Your task to perform on an android device: open app "Chime – Mobile Banking" (install if not already installed) Image 0: 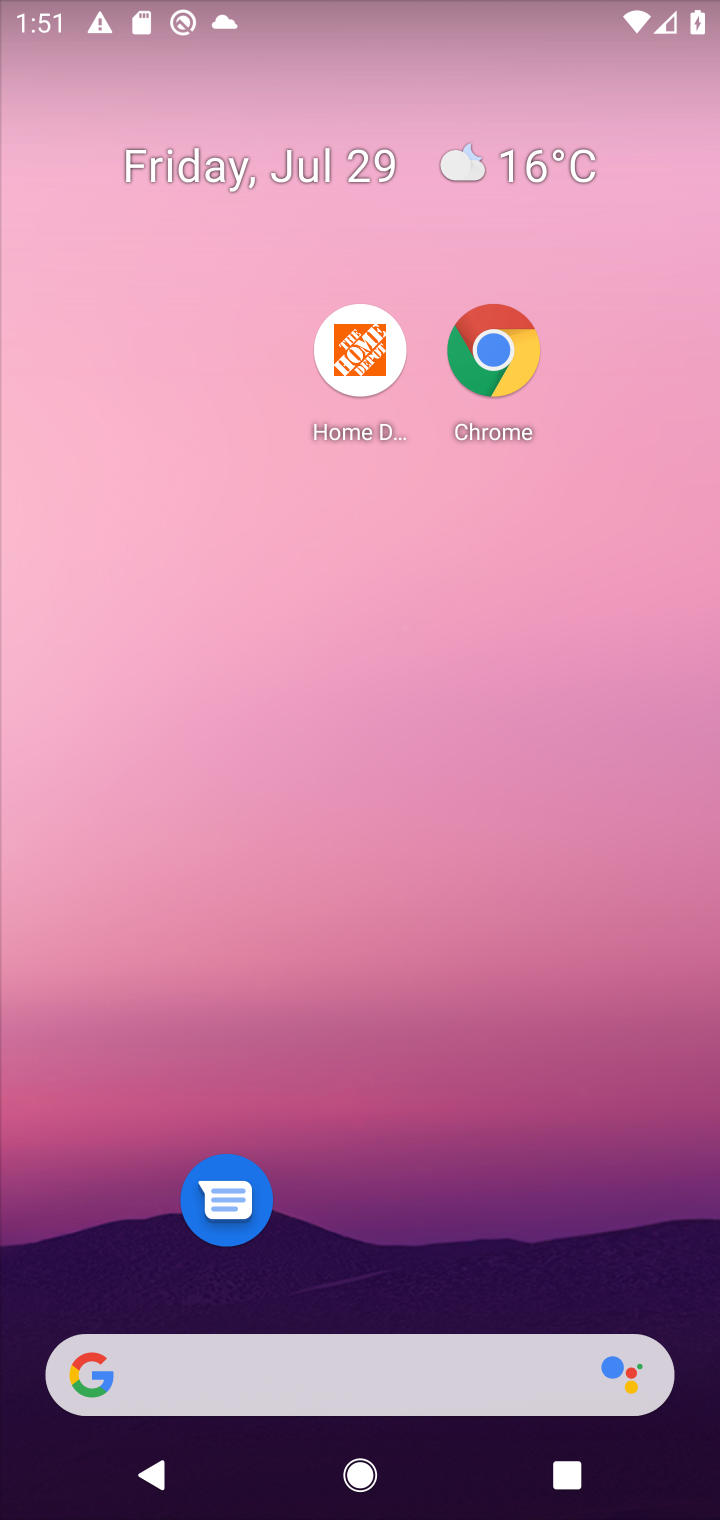
Step 0: drag from (553, 881) to (531, 108)
Your task to perform on an android device: open app "Chime – Mobile Banking" (install if not already installed) Image 1: 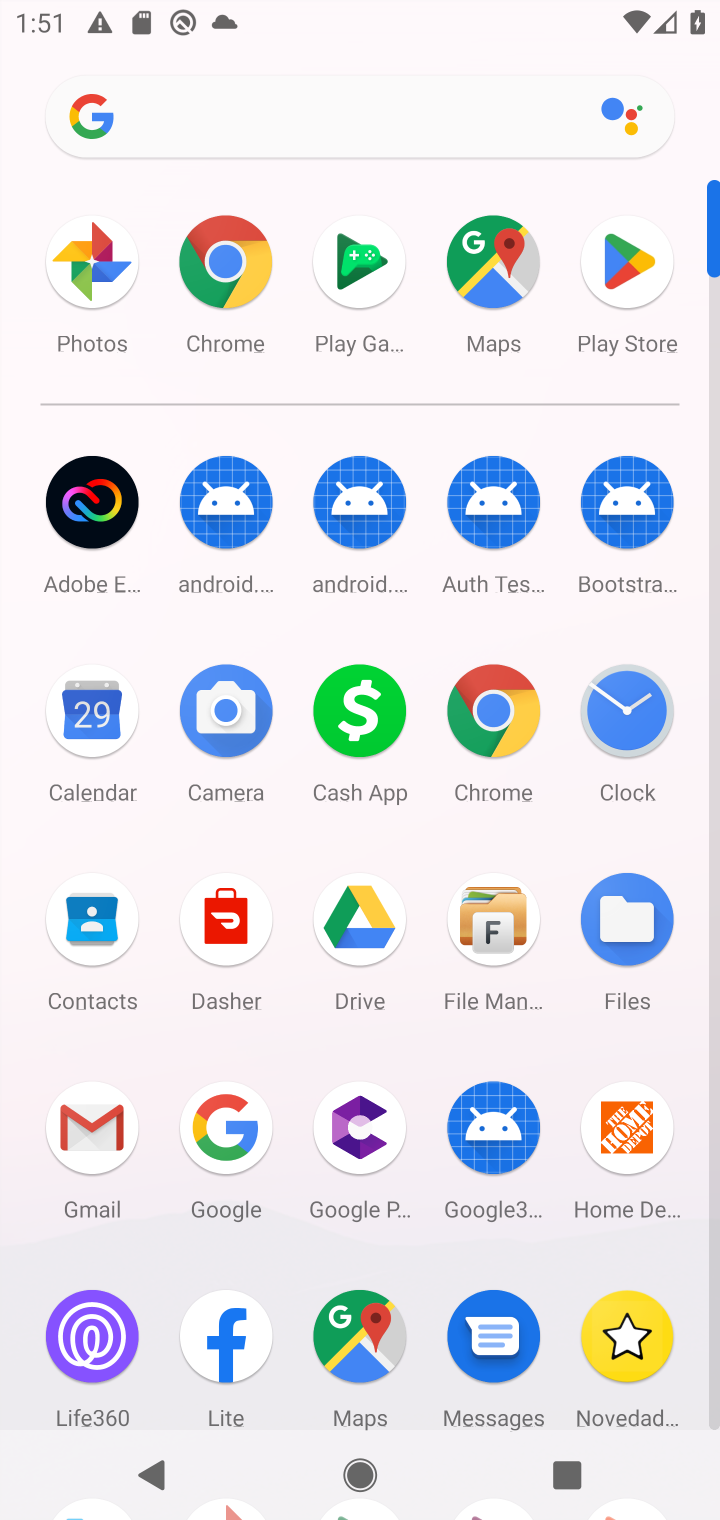
Step 1: click (624, 262)
Your task to perform on an android device: open app "Chime – Mobile Banking" (install if not already installed) Image 2: 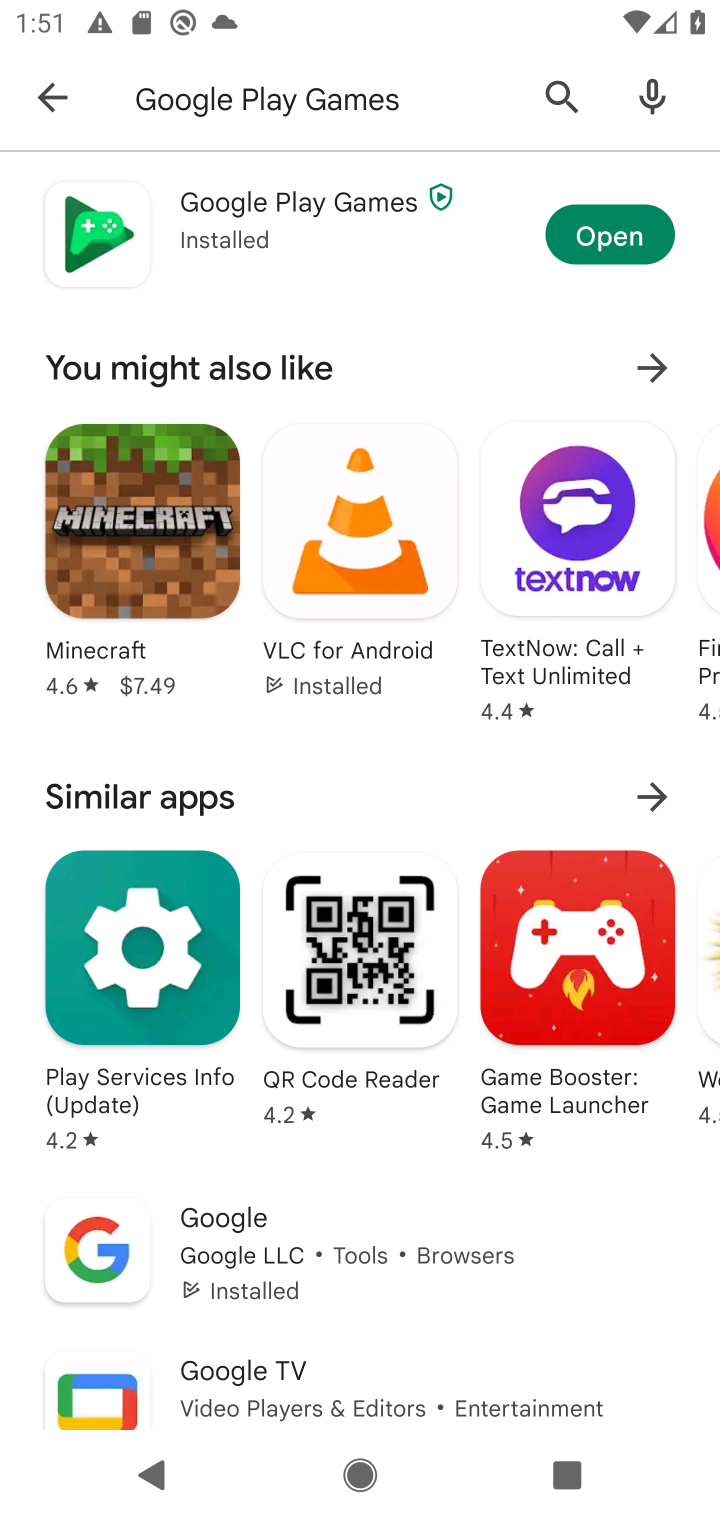
Step 2: click (412, 99)
Your task to perform on an android device: open app "Chime – Mobile Banking" (install if not already installed) Image 3: 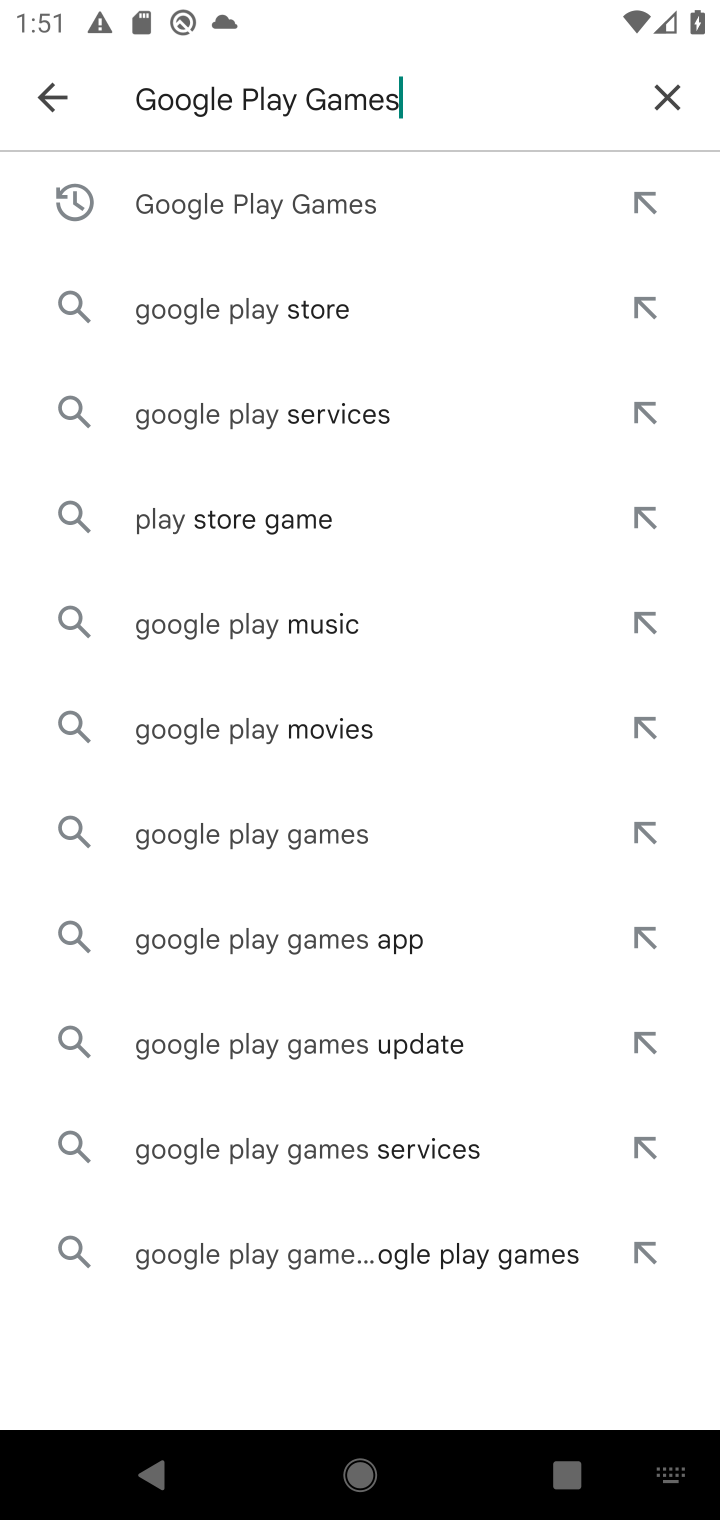
Step 3: click (660, 88)
Your task to perform on an android device: open app "Chime – Mobile Banking" (install if not already installed) Image 4: 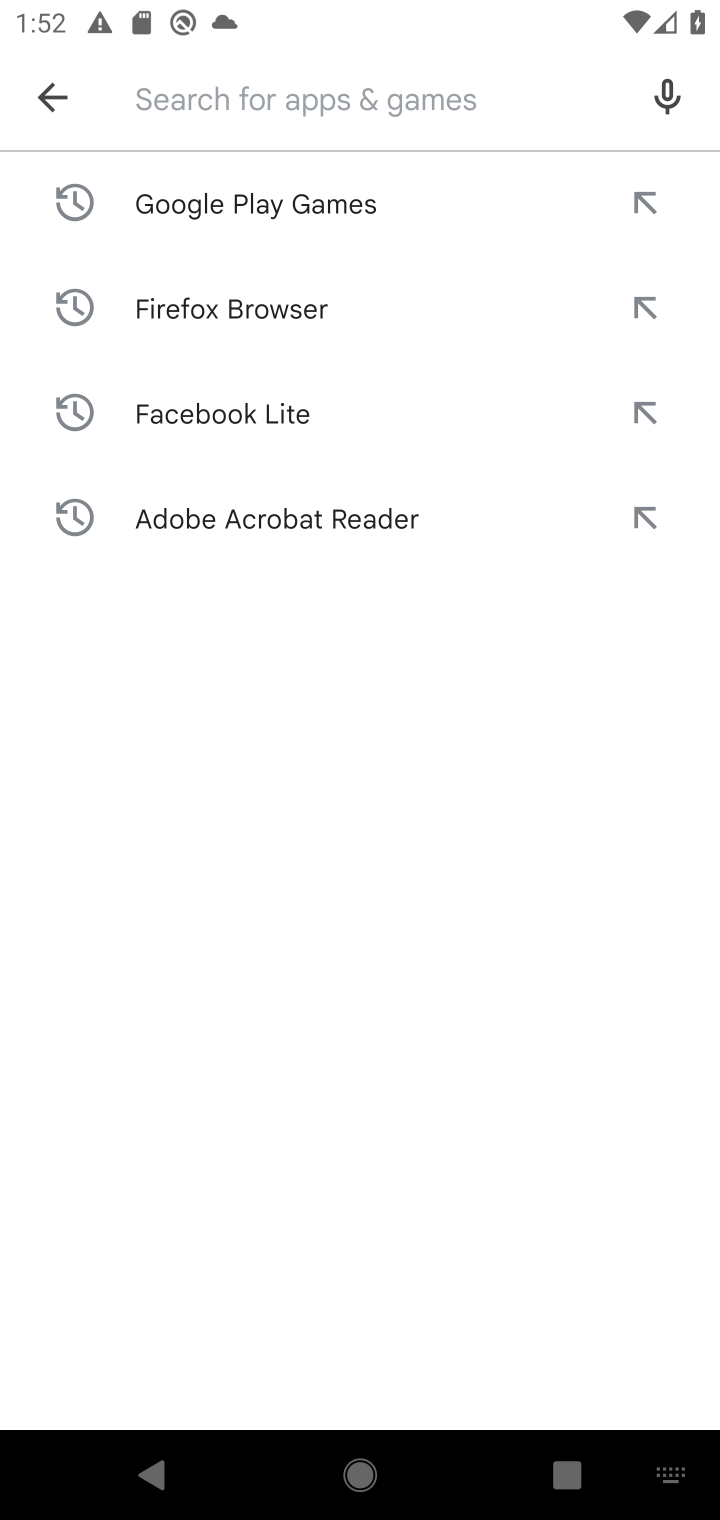
Step 4: type "Chime - Mobile Bankimg"
Your task to perform on an android device: open app "Chime – Mobile Banking" (install if not already installed) Image 5: 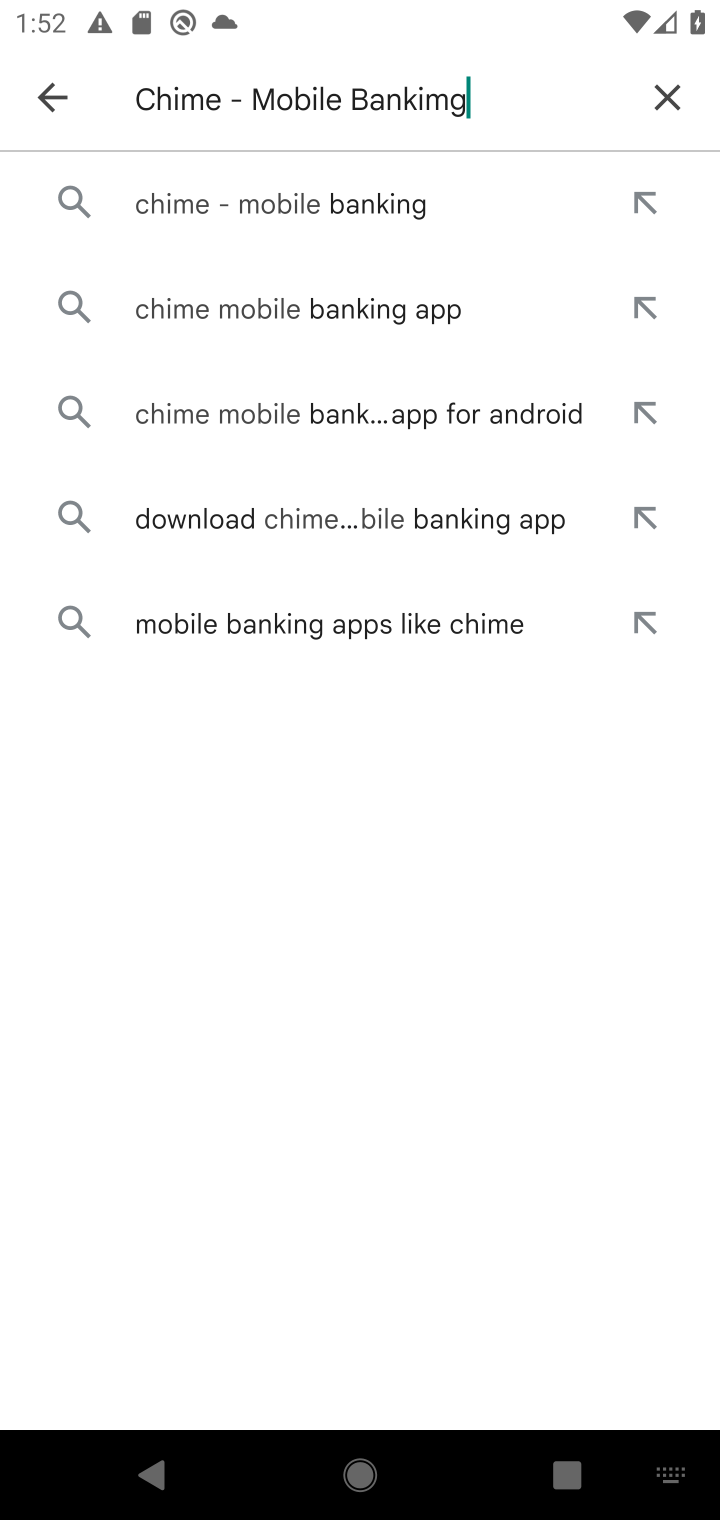
Step 5: press enter
Your task to perform on an android device: open app "Chime – Mobile Banking" (install if not already installed) Image 6: 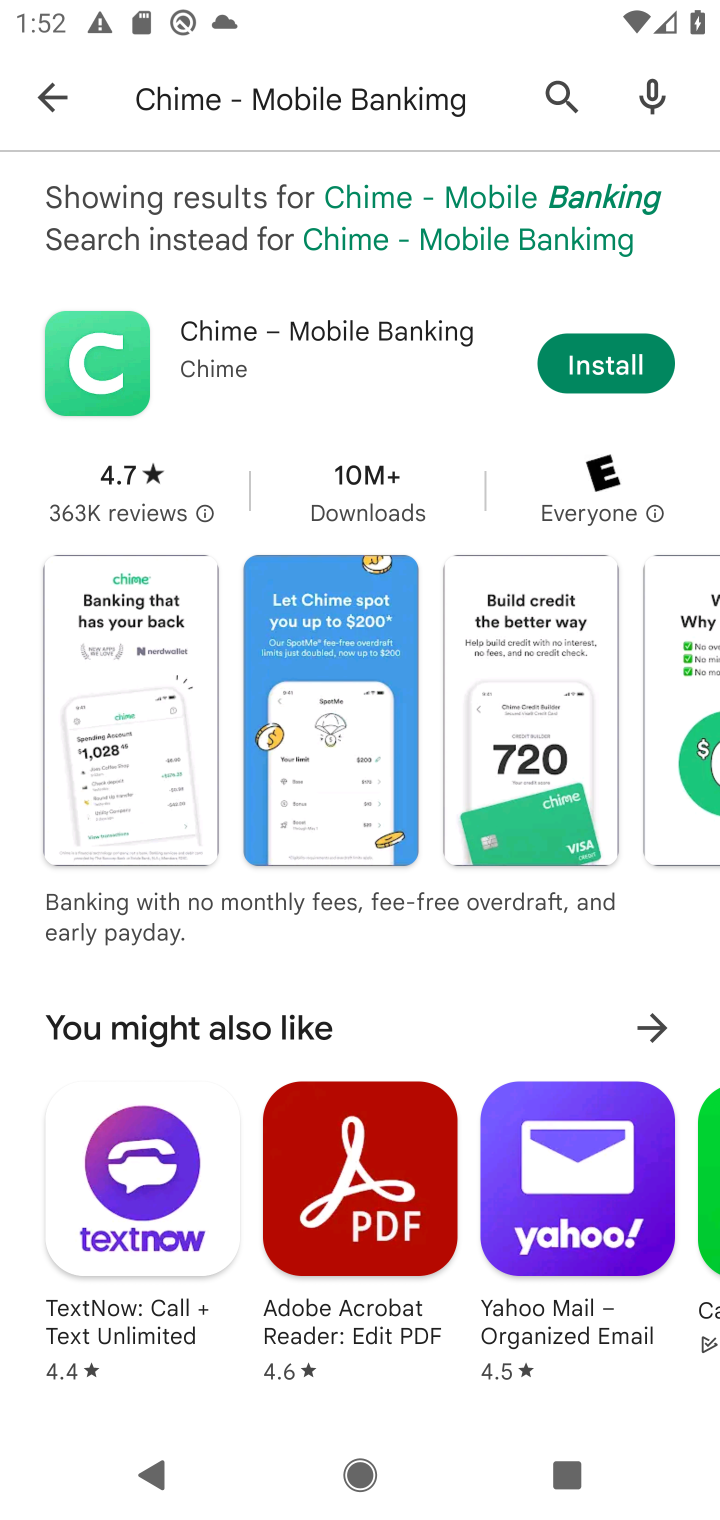
Step 6: click (610, 372)
Your task to perform on an android device: open app "Chime – Mobile Banking" (install if not already installed) Image 7: 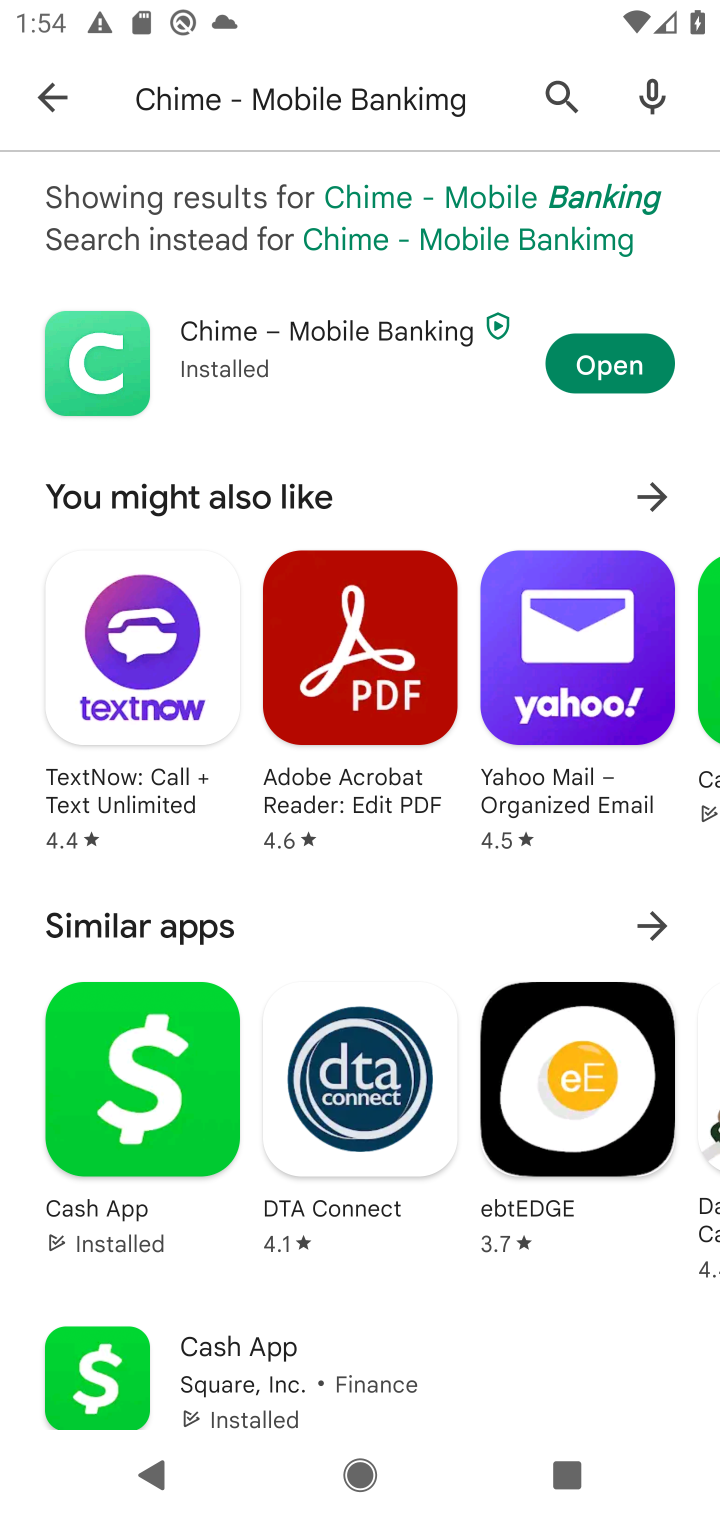
Step 7: click (610, 357)
Your task to perform on an android device: open app "Chime – Mobile Banking" (install if not already installed) Image 8: 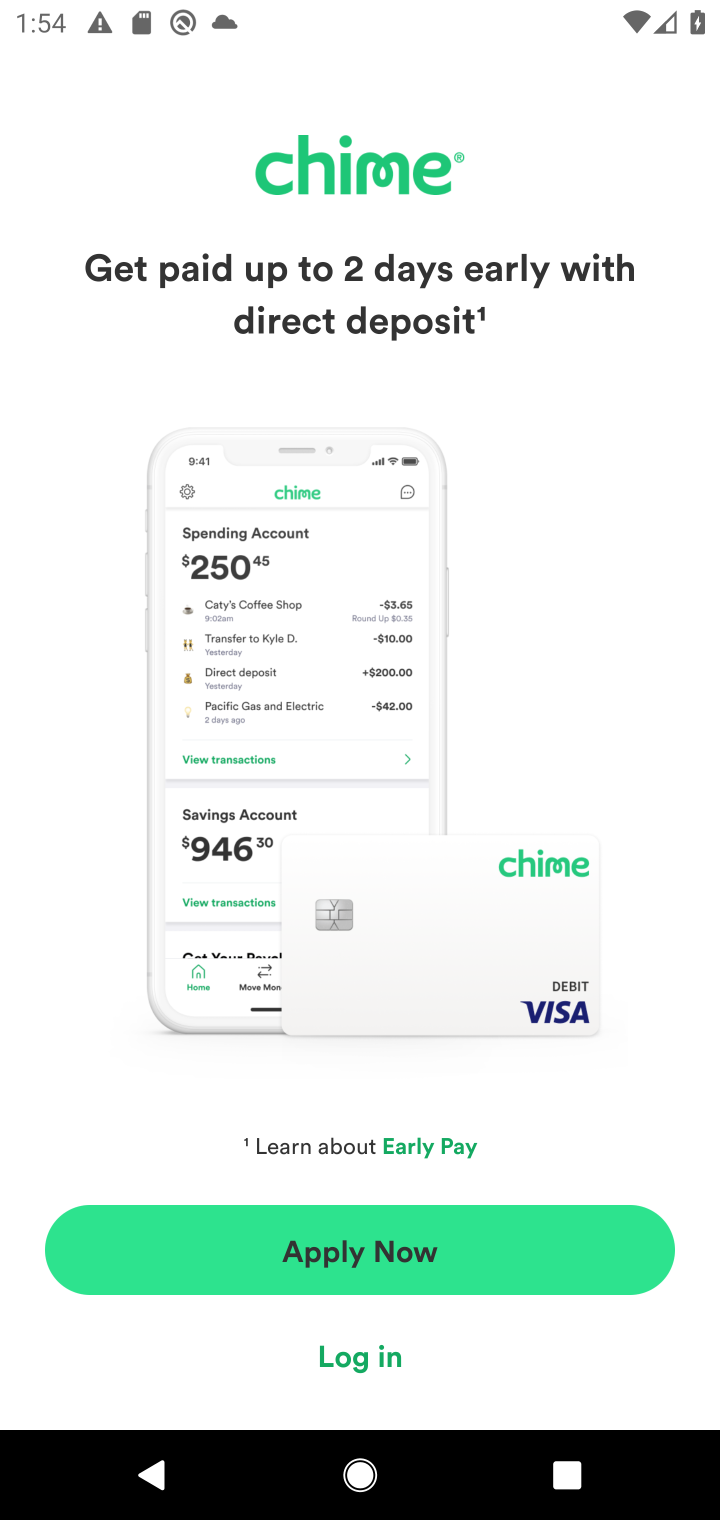
Step 8: task complete